Your task to perform on an android device: check data usage Image 0: 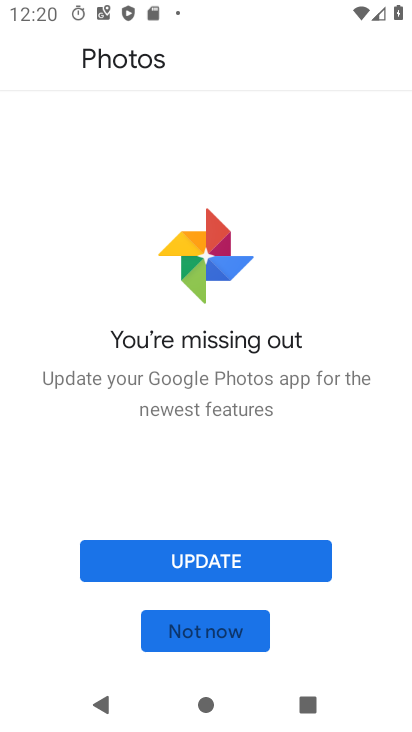
Step 0: press home button
Your task to perform on an android device: check data usage Image 1: 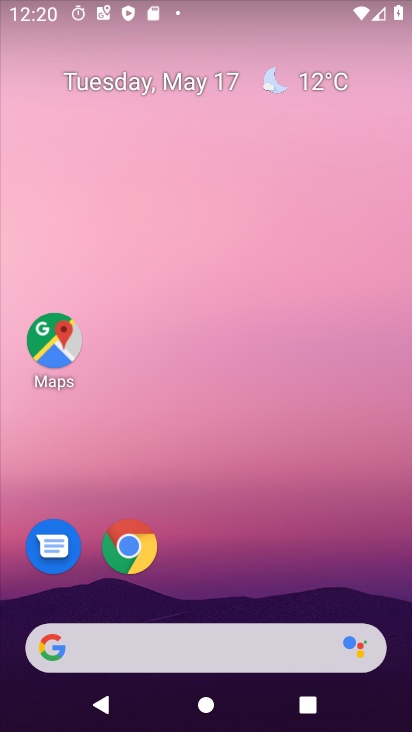
Step 1: drag from (200, 655) to (361, 153)
Your task to perform on an android device: check data usage Image 2: 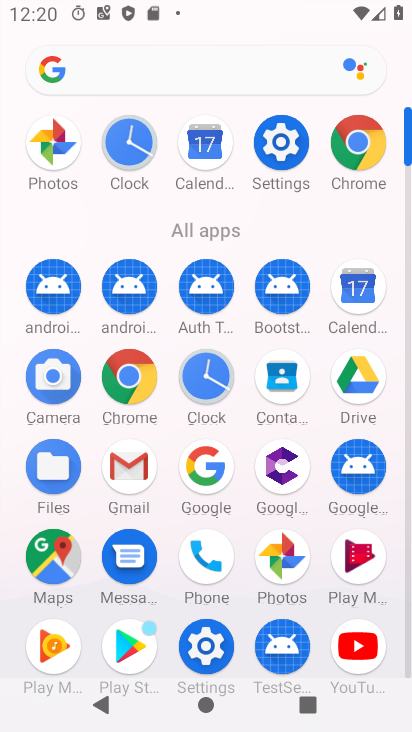
Step 2: click (280, 141)
Your task to perform on an android device: check data usage Image 3: 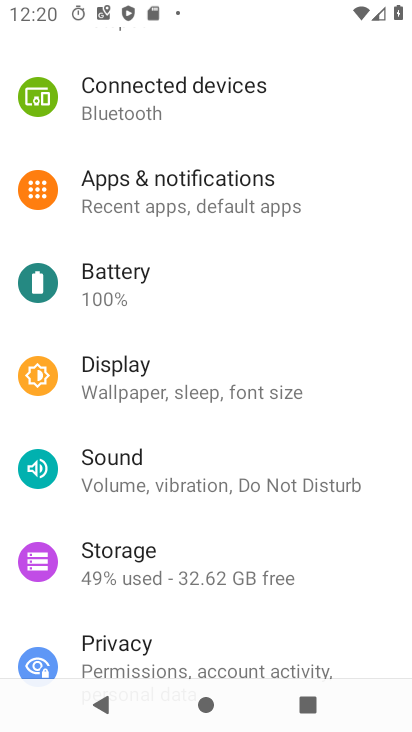
Step 3: drag from (280, 118) to (158, 590)
Your task to perform on an android device: check data usage Image 4: 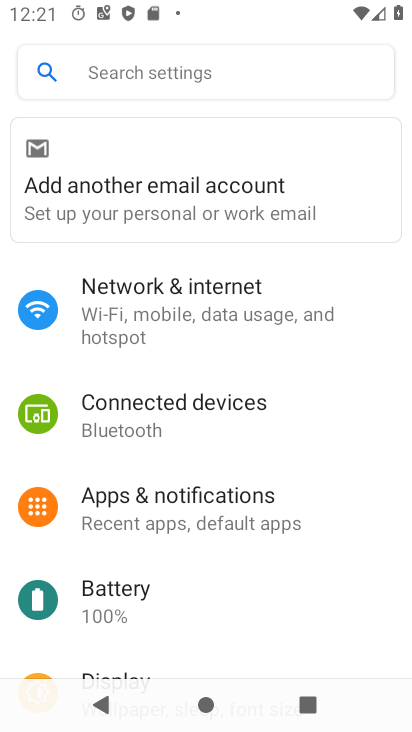
Step 4: click (192, 291)
Your task to perform on an android device: check data usage Image 5: 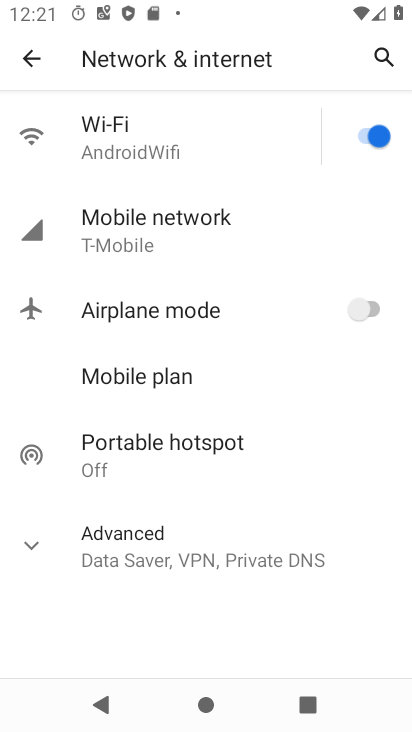
Step 5: click (148, 136)
Your task to perform on an android device: check data usage Image 6: 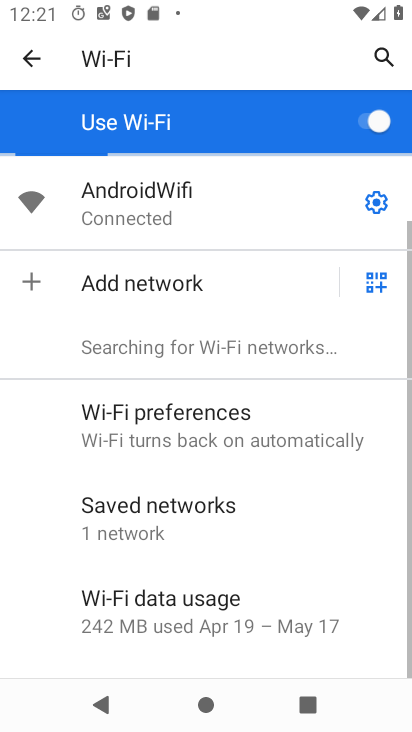
Step 6: click (157, 616)
Your task to perform on an android device: check data usage Image 7: 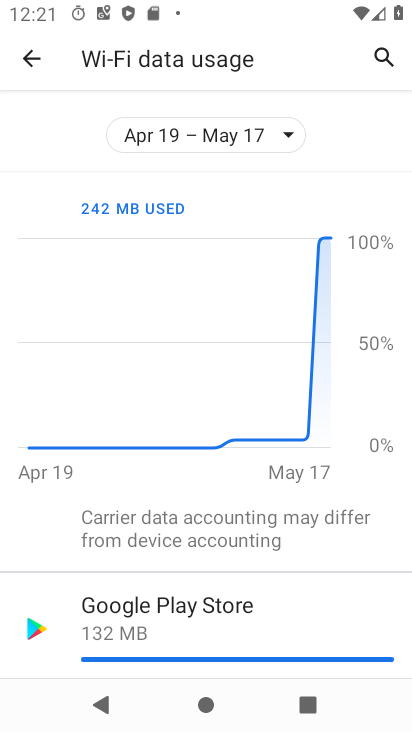
Step 7: task complete